Your task to perform on an android device: Show me productivity apps on the Play Store Image 0: 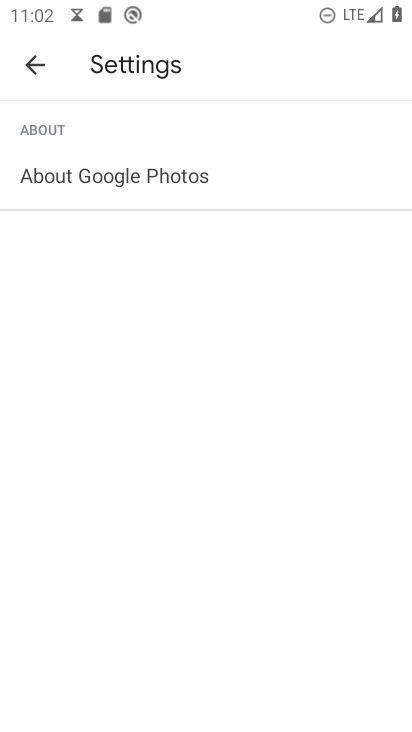
Step 0: press home button
Your task to perform on an android device: Show me productivity apps on the Play Store Image 1: 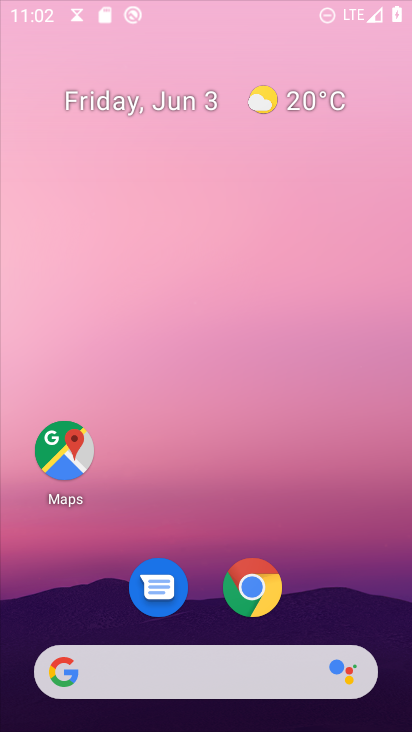
Step 1: drag from (334, 649) to (142, 19)
Your task to perform on an android device: Show me productivity apps on the Play Store Image 2: 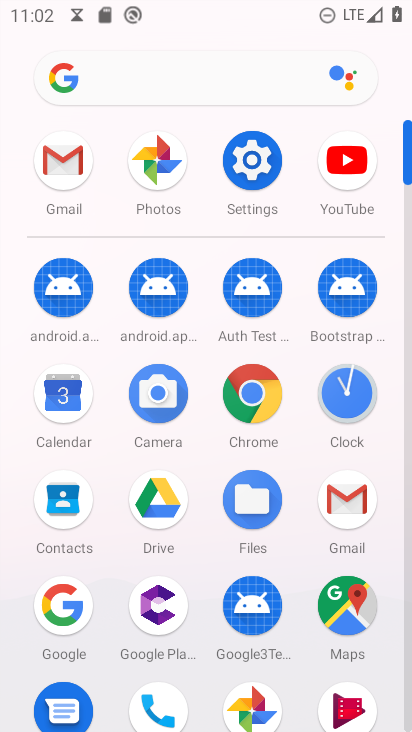
Step 2: drag from (347, 458) to (211, 32)
Your task to perform on an android device: Show me productivity apps on the Play Store Image 3: 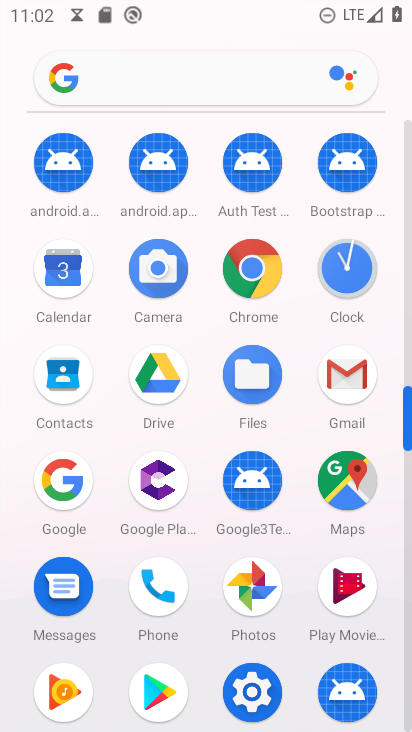
Step 3: click (156, 691)
Your task to perform on an android device: Show me productivity apps on the Play Store Image 4: 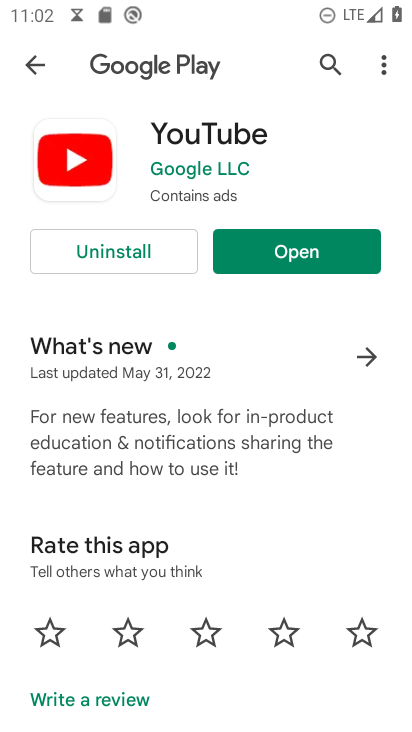
Step 4: click (26, 60)
Your task to perform on an android device: Show me productivity apps on the Play Store Image 5: 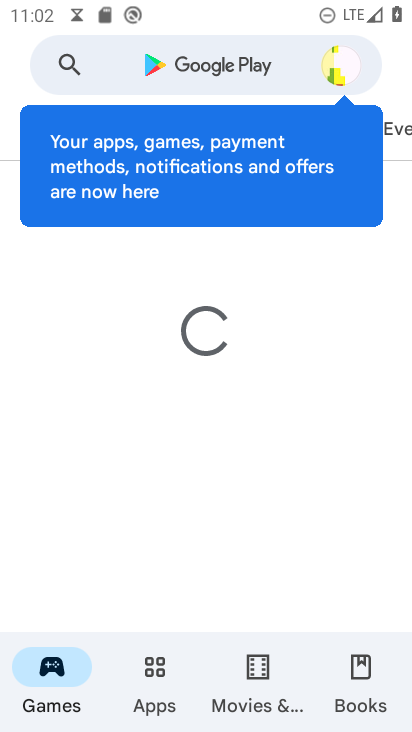
Step 5: click (145, 696)
Your task to perform on an android device: Show me productivity apps on the Play Store Image 6: 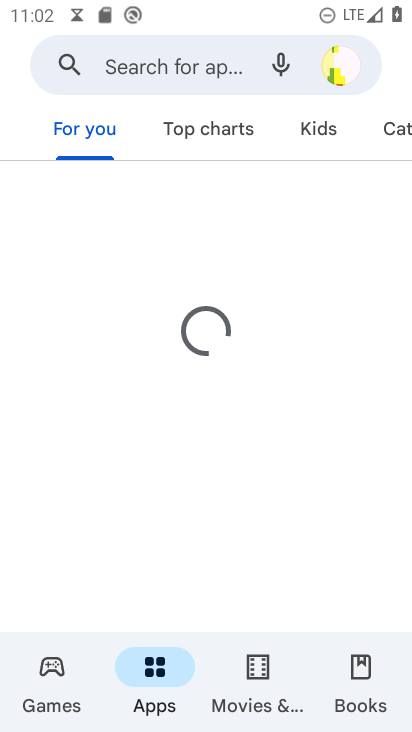
Step 6: click (179, 67)
Your task to perform on an android device: Show me productivity apps on the Play Store Image 7: 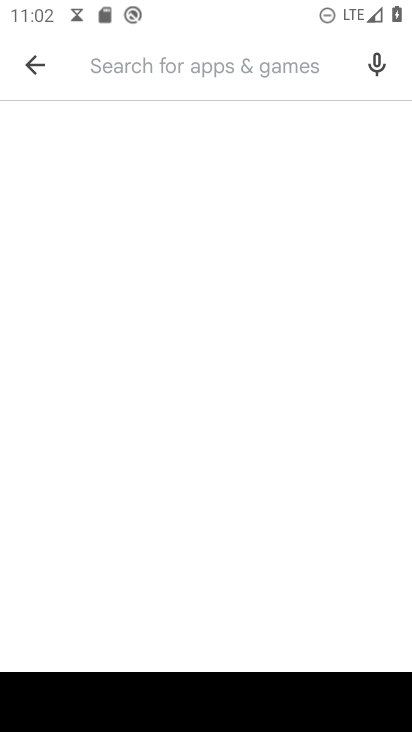
Step 7: type "productivity apps"
Your task to perform on an android device: Show me productivity apps on the Play Store Image 8: 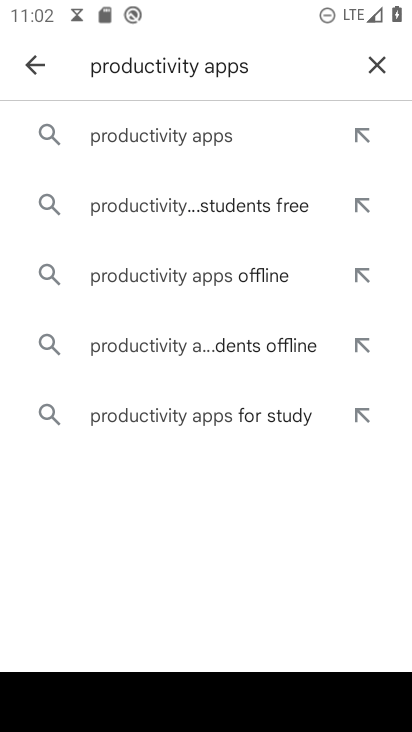
Step 8: click (205, 130)
Your task to perform on an android device: Show me productivity apps on the Play Store Image 9: 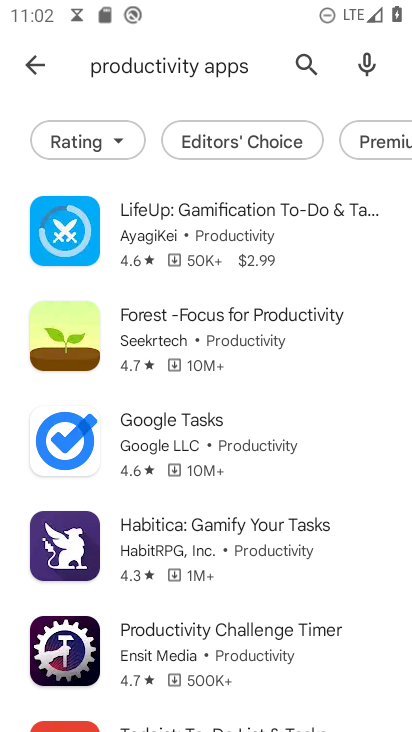
Step 9: task complete